Your task to perform on an android device: open app "Duolingo: language lessons" Image 0: 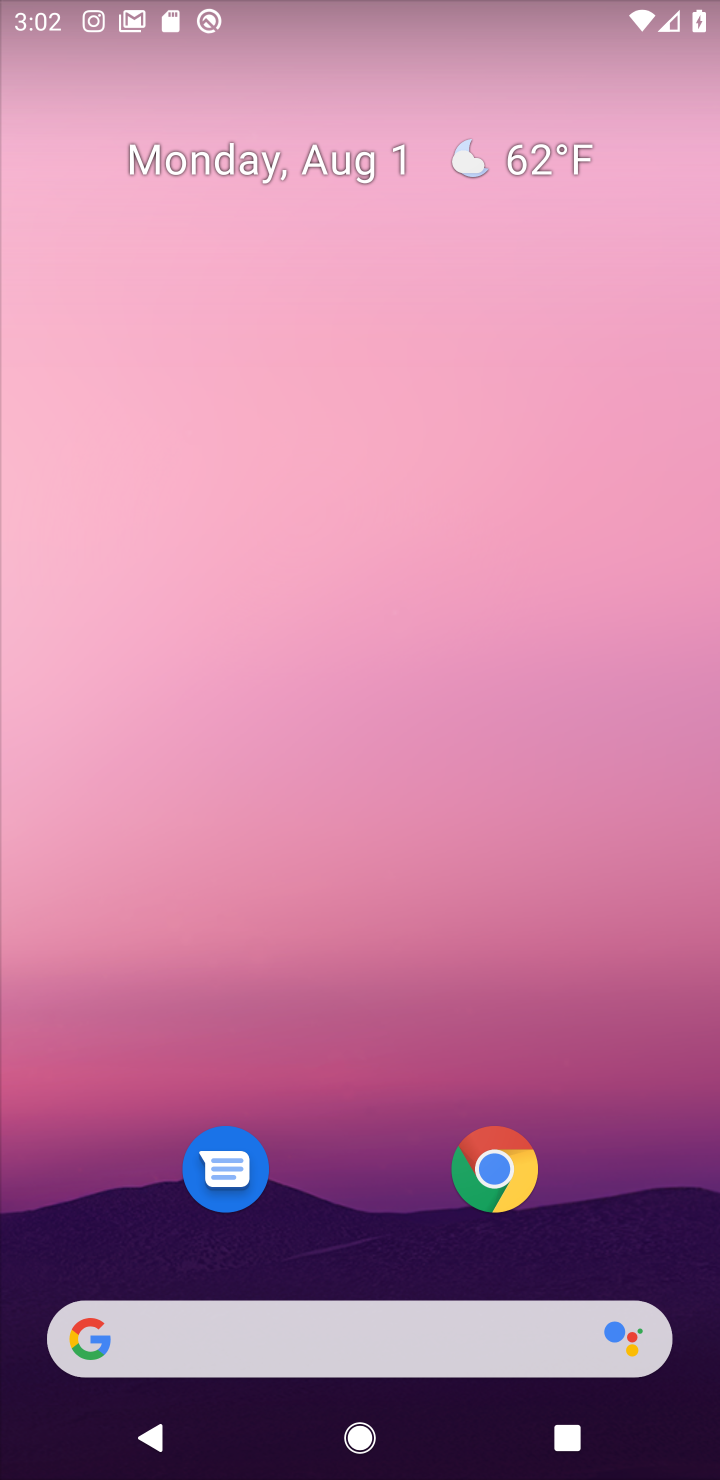
Step 0: drag from (330, 1041) to (187, 544)
Your task to perform on an android device: open app "Duolingo: language lessons" Image 1: 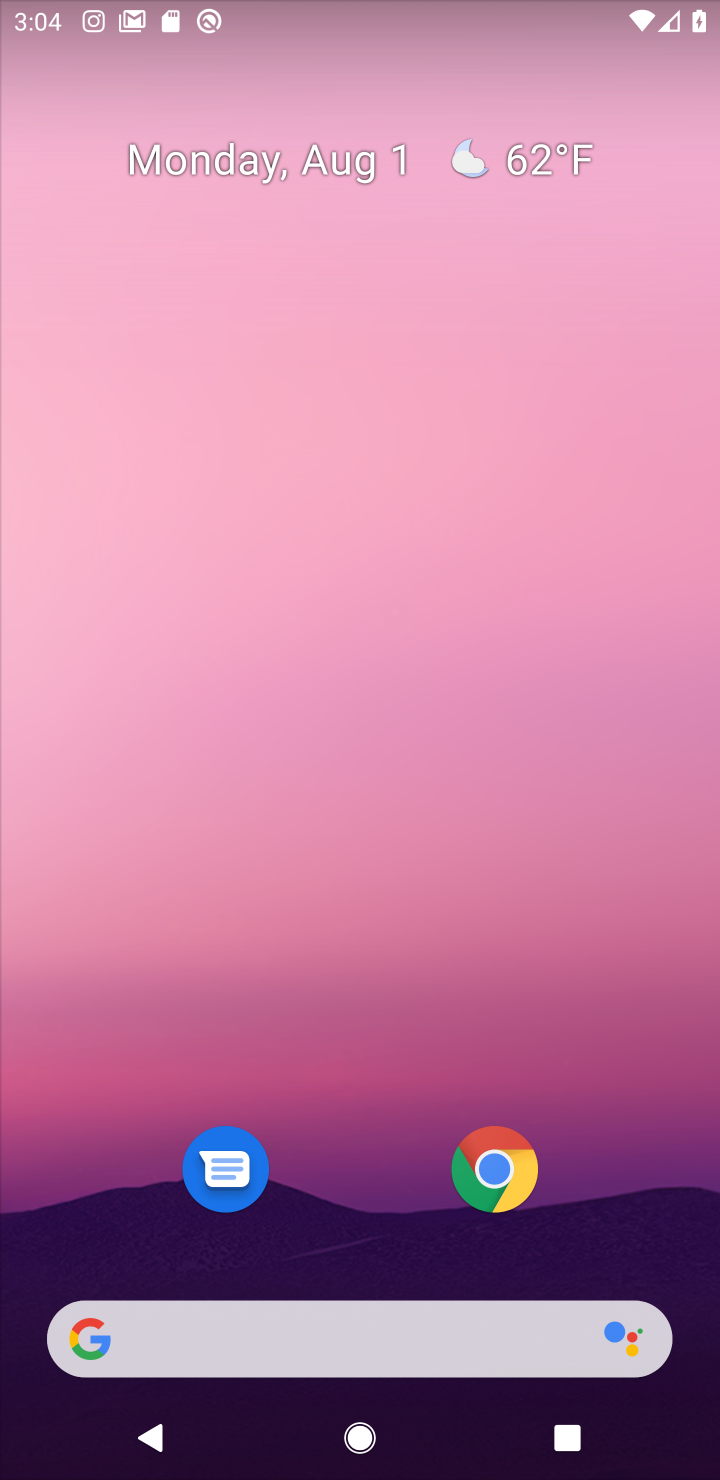
Step 1: drag from (285, 706) to (157, 39)
Your task to perform on an android device: open app "Duolingo: language lessons" Image 2: 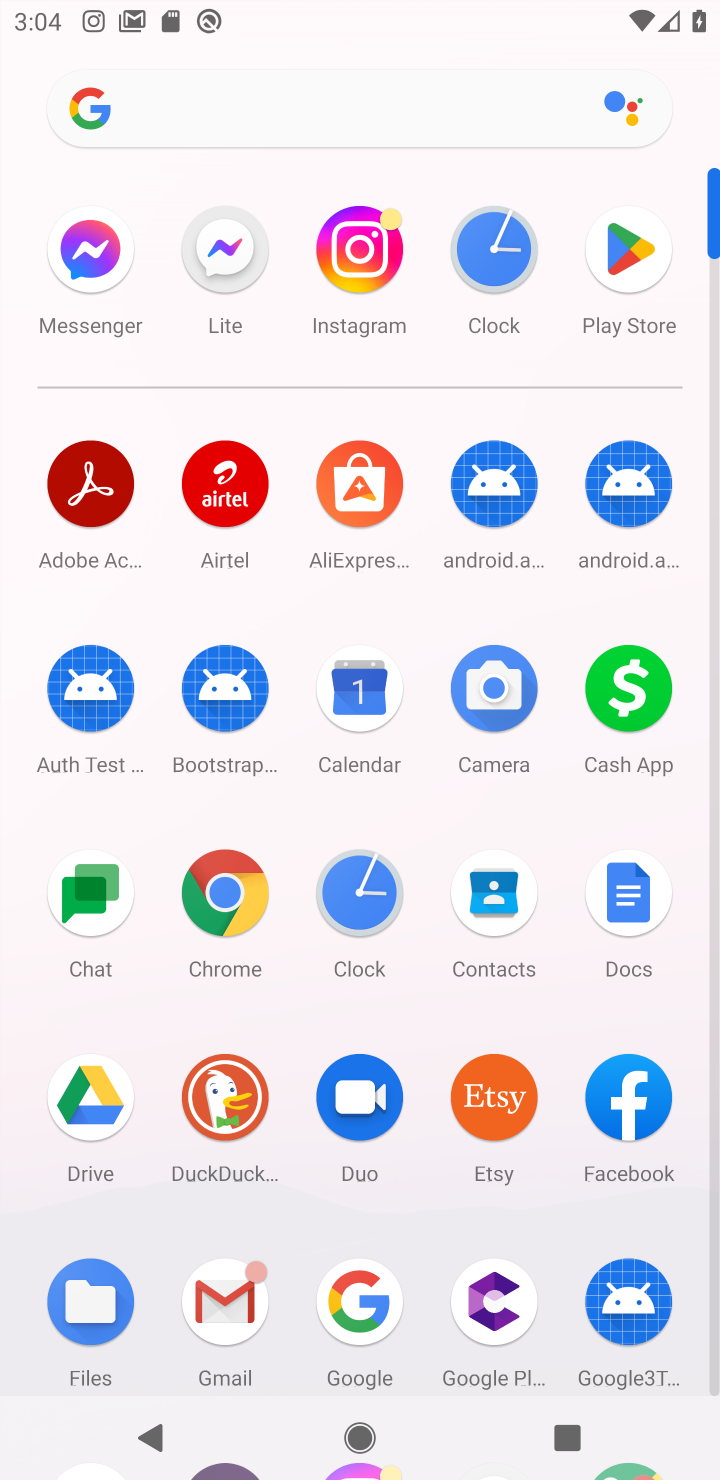
Step 2: click (614, 304)
Your task to perform on an android device: open app "Duolingo: language lessons" Image 3: 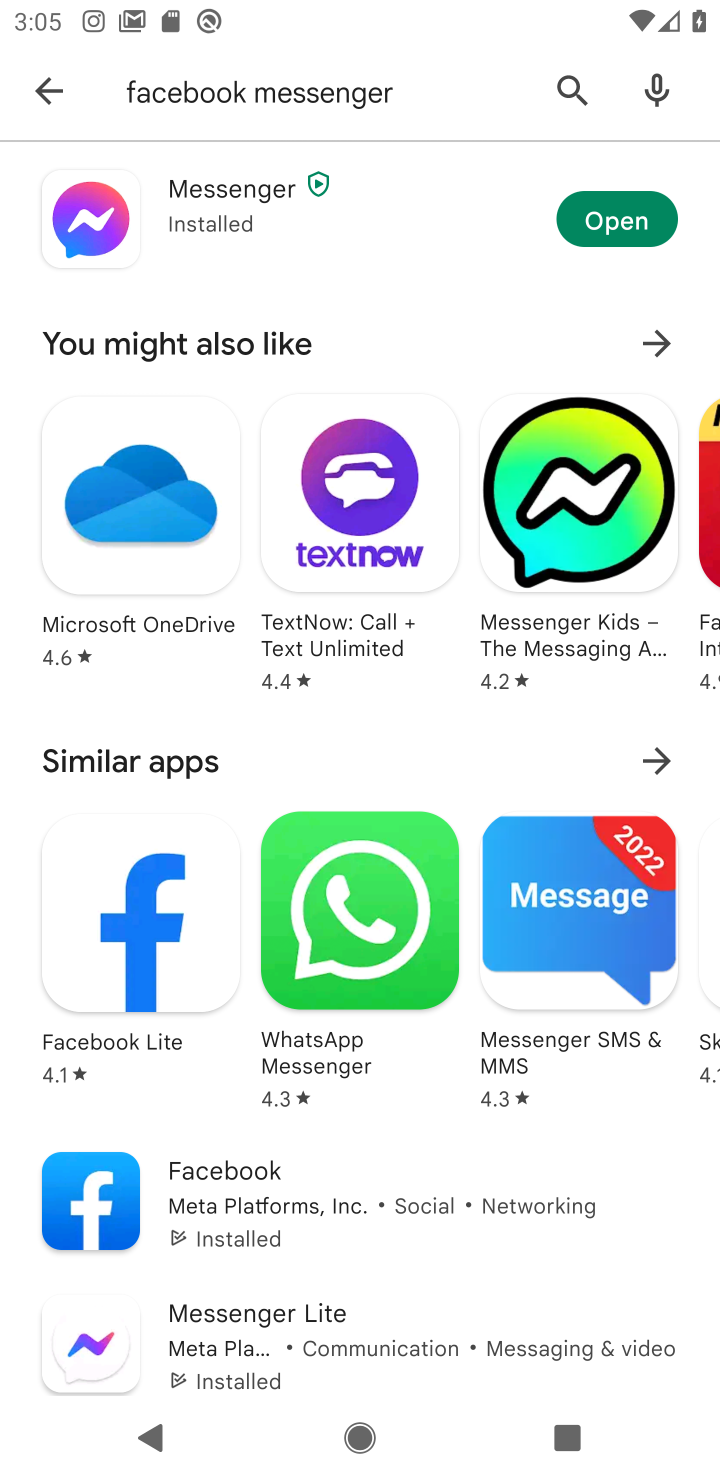
Step 3: click (49, 81)
Your task to perform on an android device: open app "Duolingo: language lessons" Image 4: 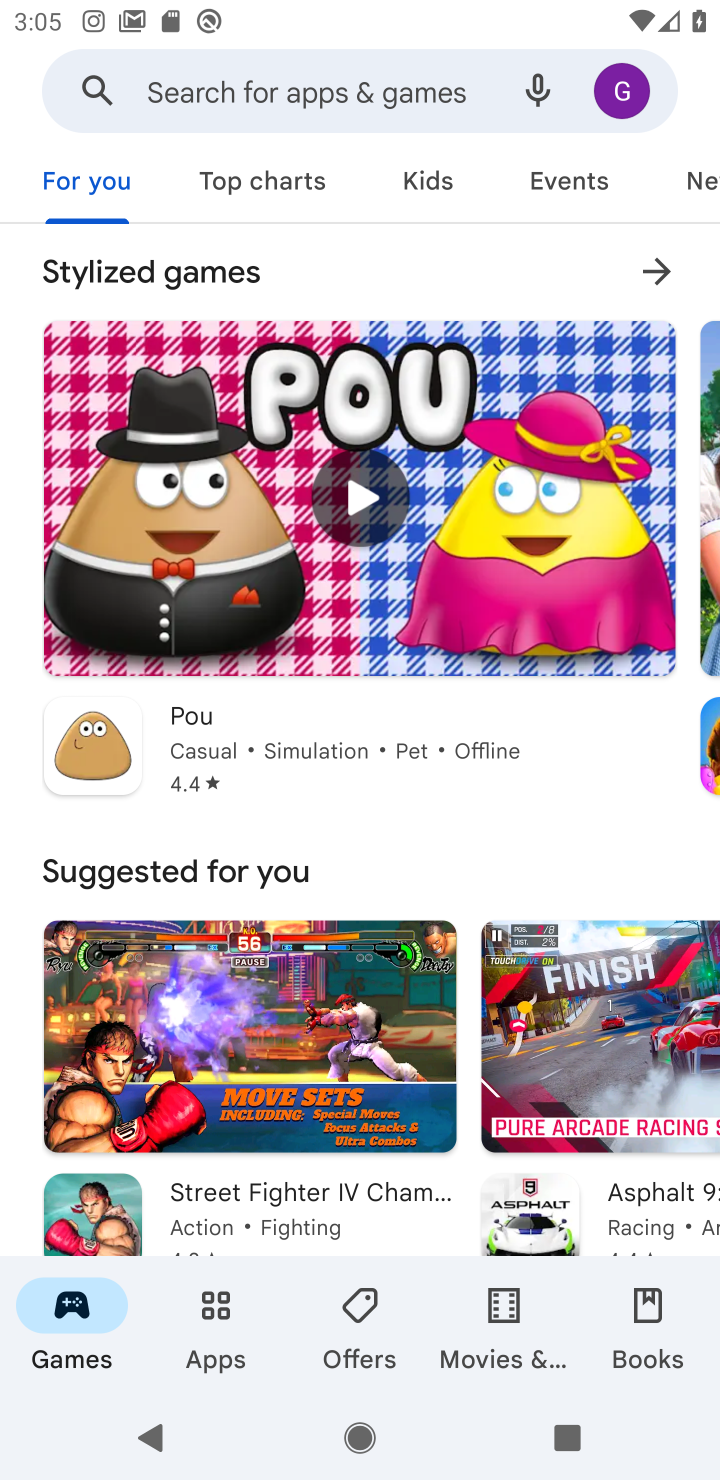
Step 4: click (318, 98)
Your task to perform on an android device: open app "Duolingo: language lessons" Image 5: 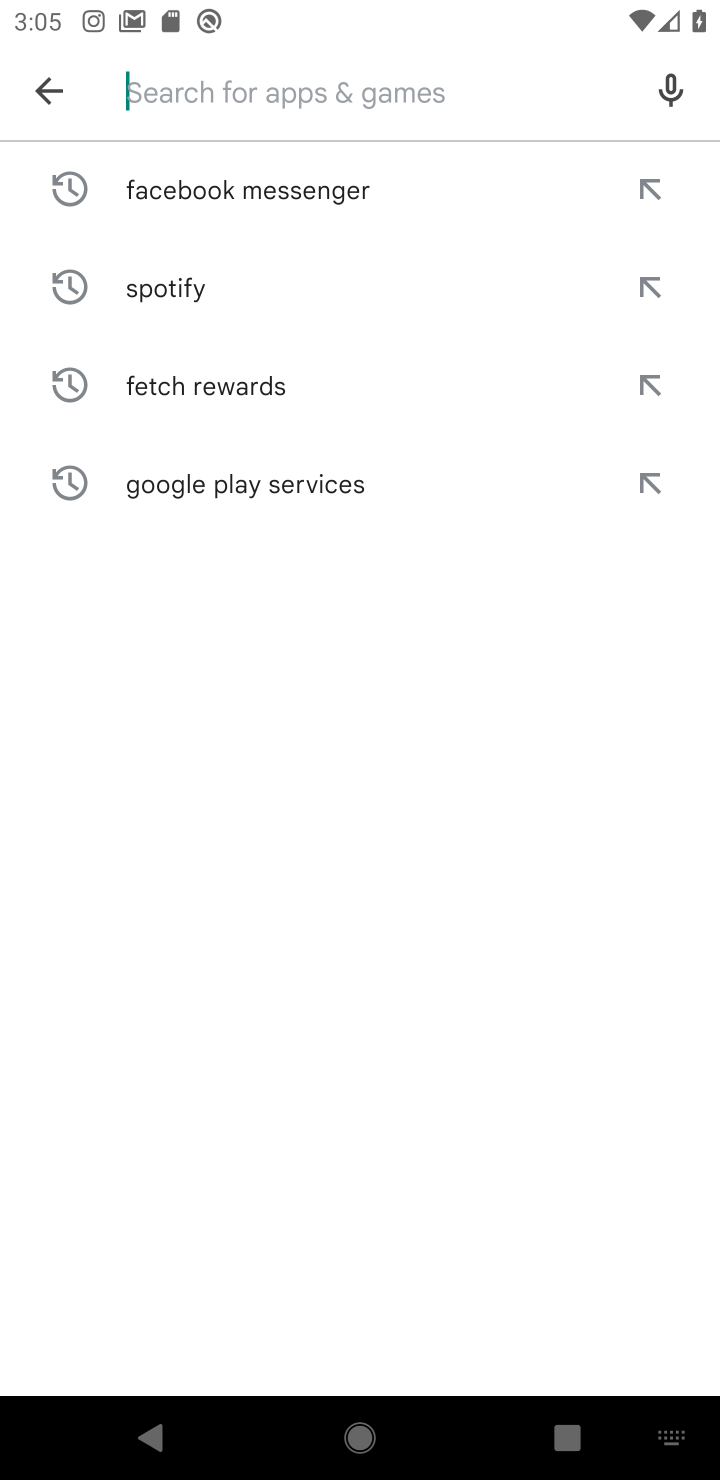
Step 5: type "Duolingo"
Your task to perform on an android device: open app "Duolingo: language lessons" Image 6: 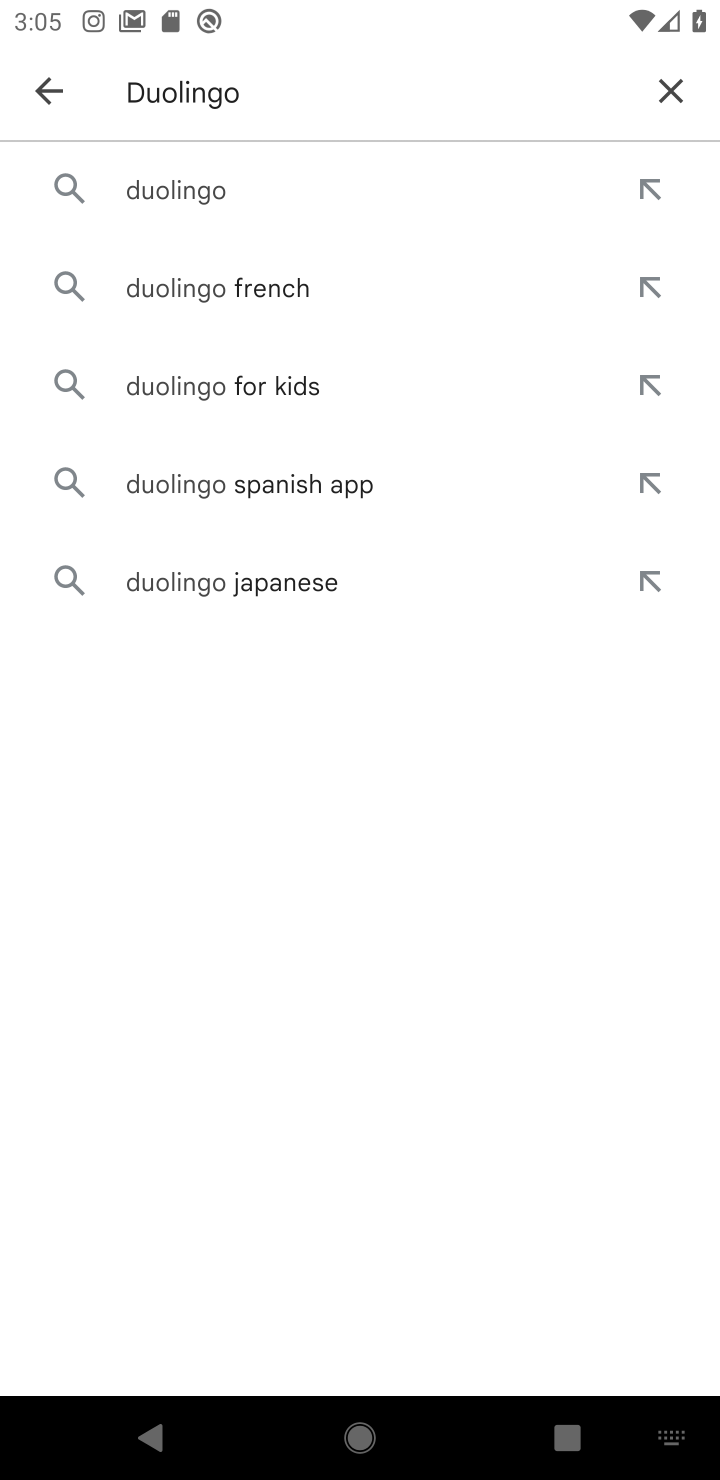
Step 6: click (164, 194)
Your task to perform on an android device: open app "Duolingo: language lessons" Image 7: 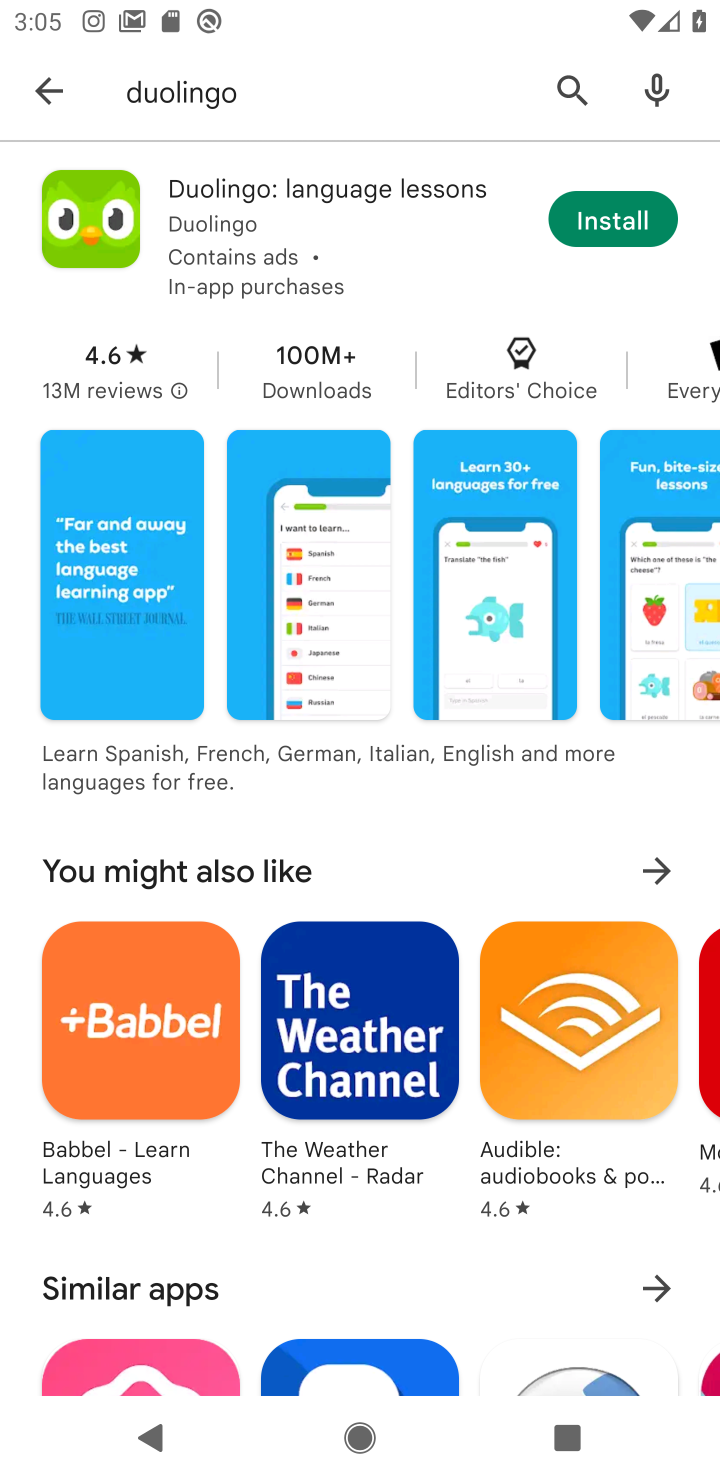
Step 7: click (614, 229)
Your task to perform on an android device: open app "Duolingo: language lessons" Image 8: 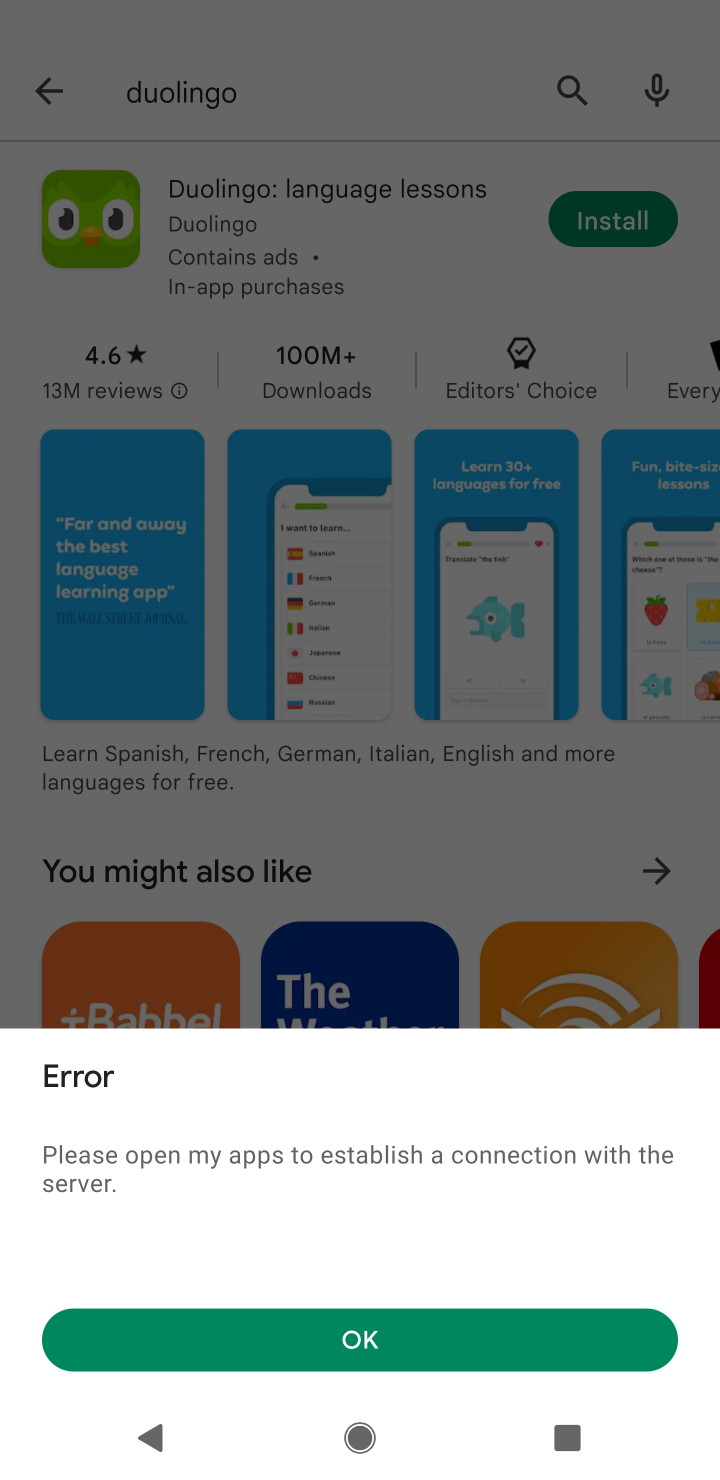
Step 8: click (374, 1348)
Your task to perform on an android device: open app "Duolingo: language lessons" Image 9: 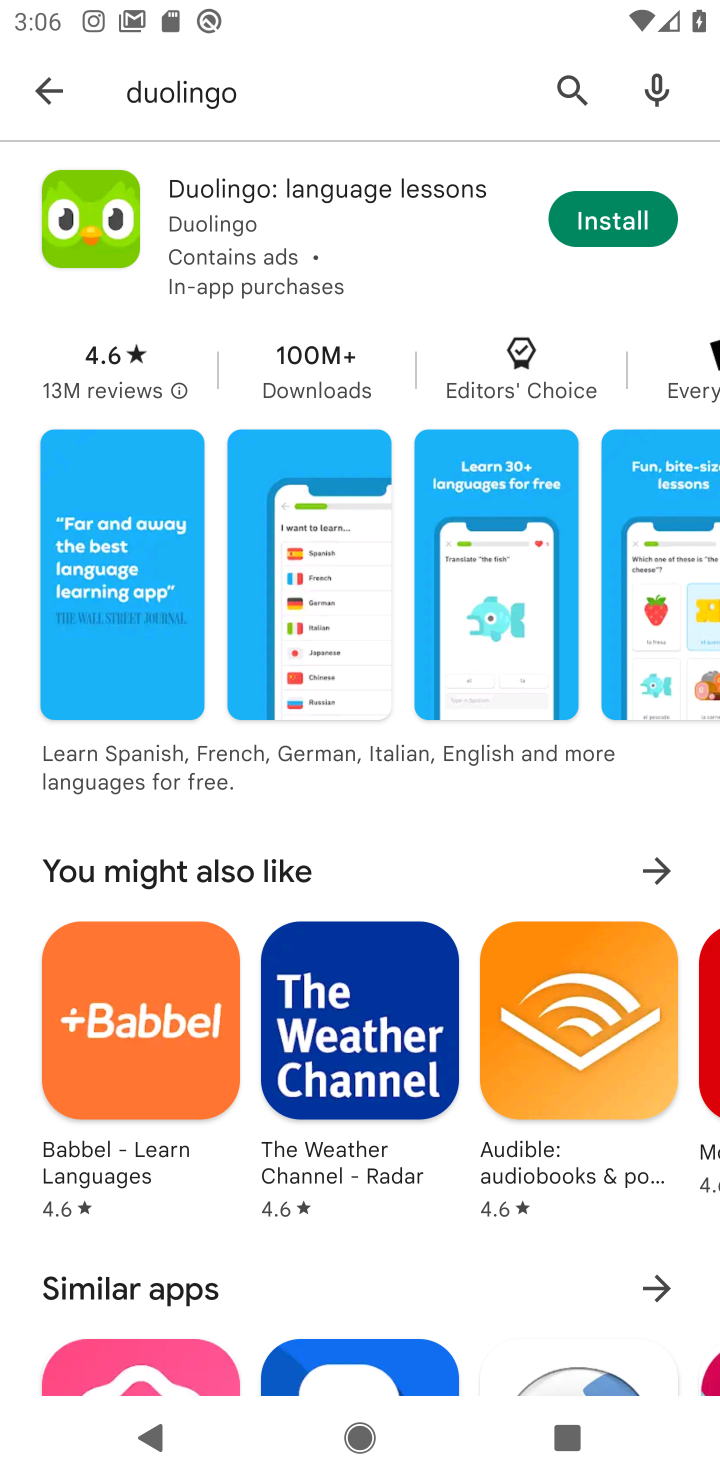
Step 9: click (592, 238)
Your task to perform on an android device: open app "Duolingo: language lessons" Image 10: 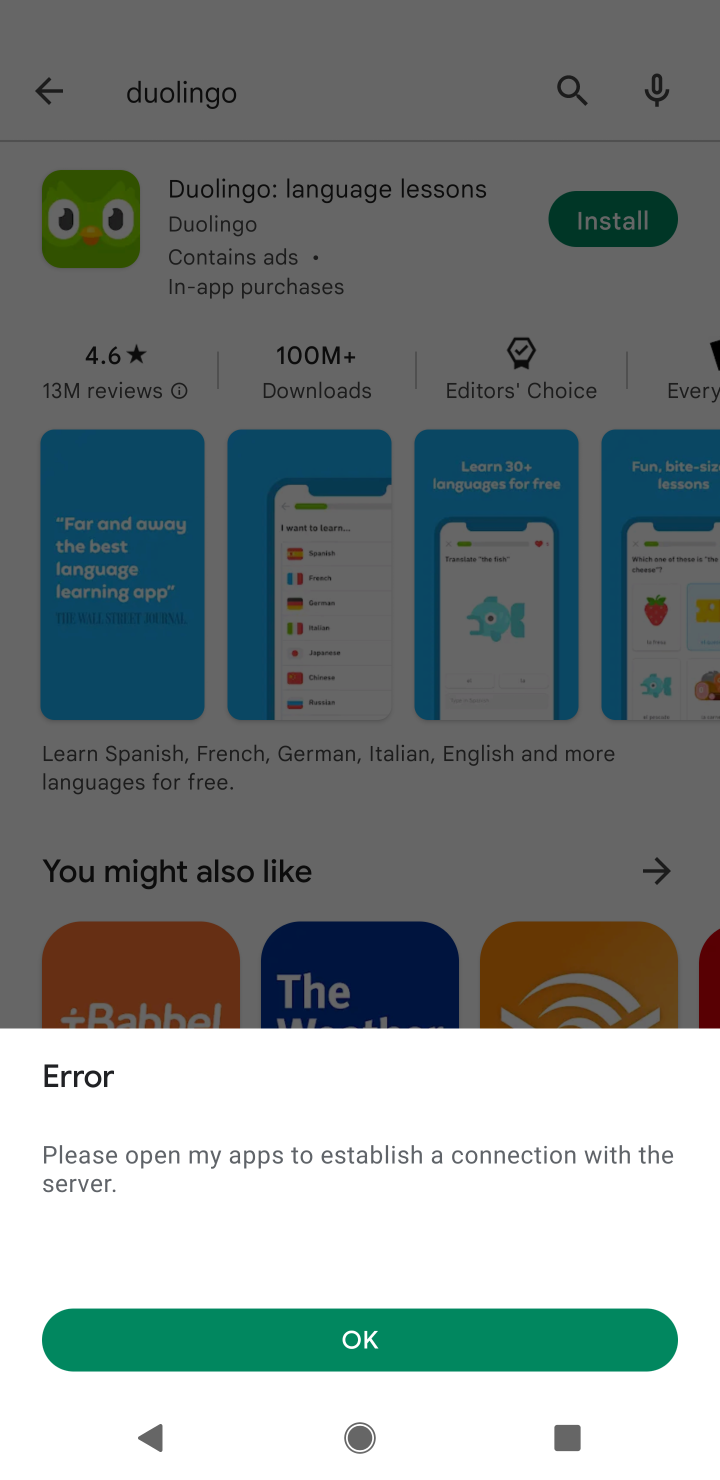
Step 10: task complete